Your task to perform on an android device: Add "energizer triple a" to the cart on costco.com Image 0: 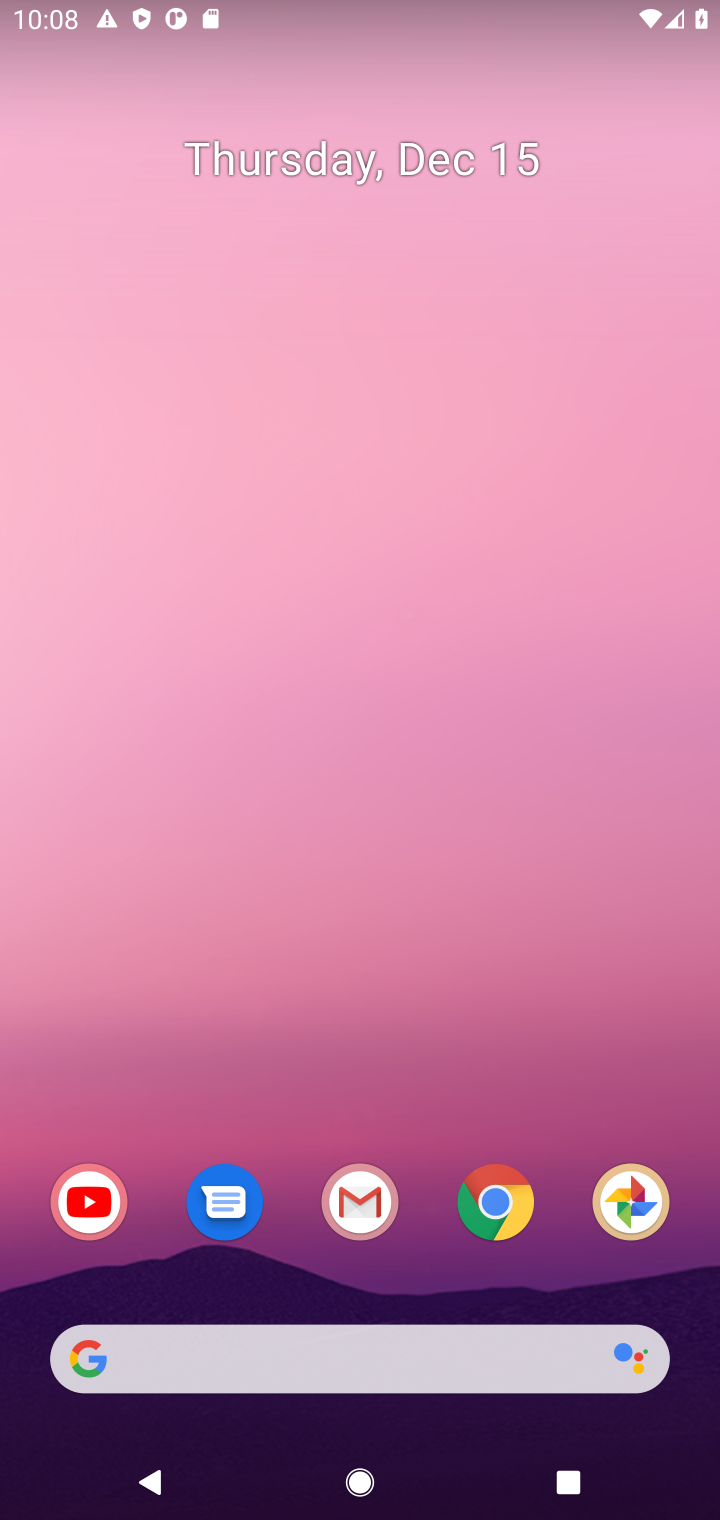
Step 0: click (487, 1221)
Your task to perform on an android device: Add "energizer triple a" to the cart on costco.com Image 1: 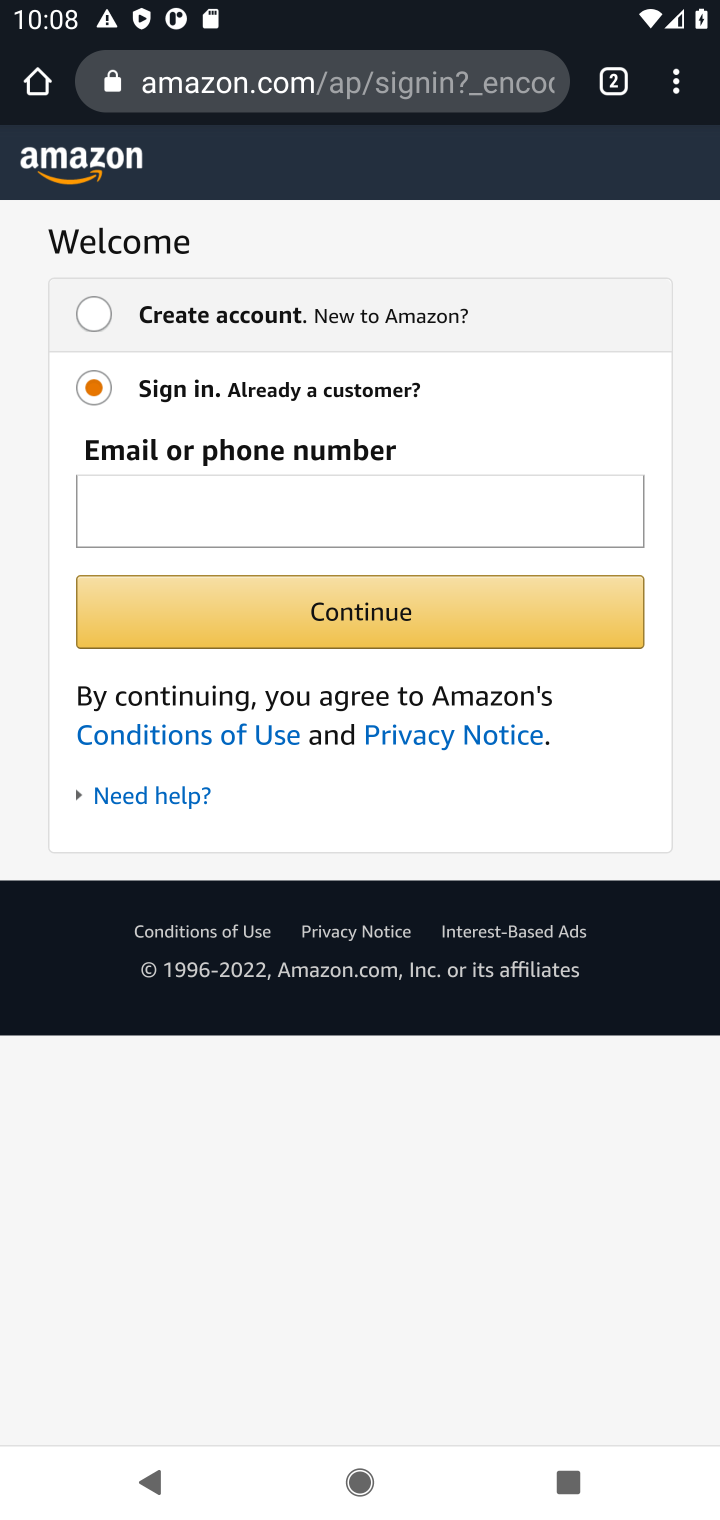
Step 1: click (276, 86)
Your task to perform on an android device: Add "energizer triple a" to the cart on costco.com Image 2: 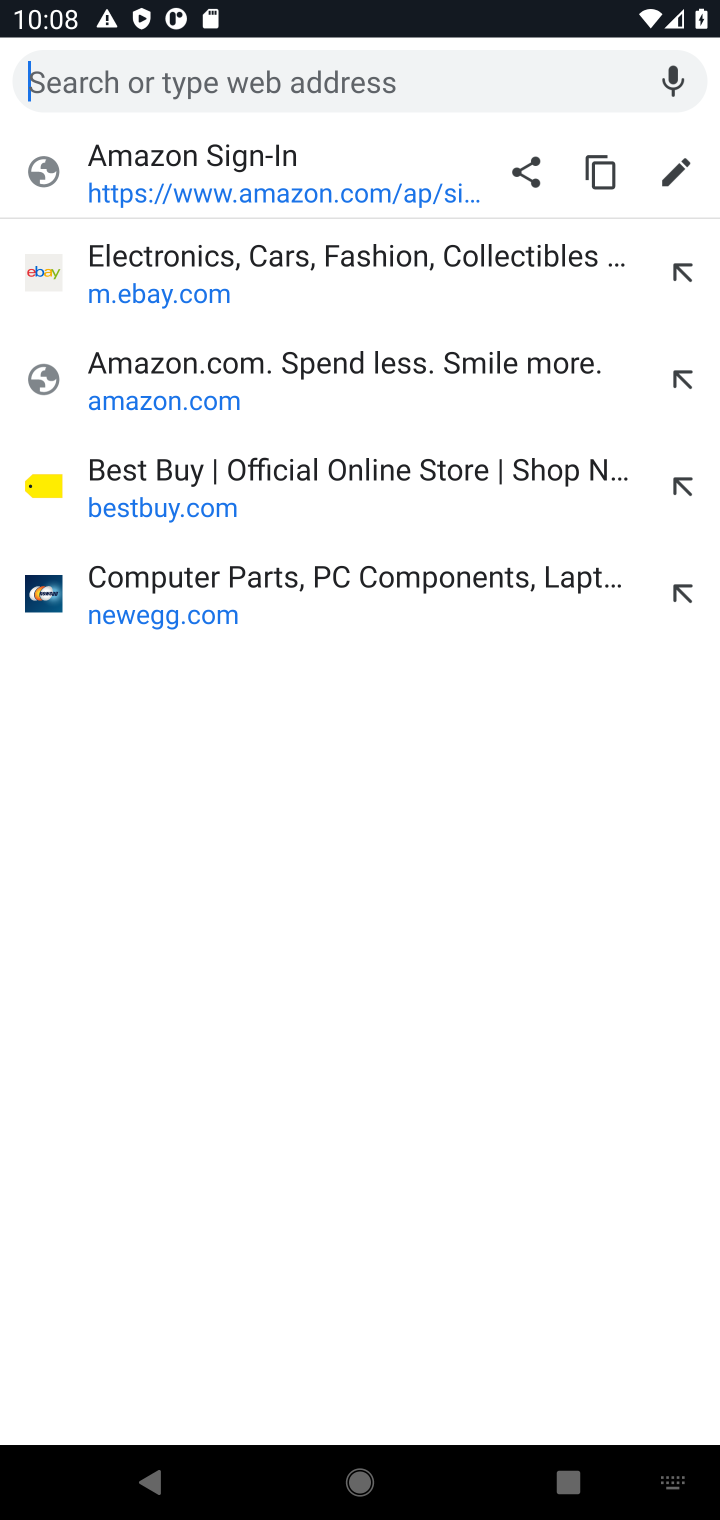
Step 2: type "costco.com"
Your task to perform on an android device: Add "energizer triple a" to the cart on costco.com Image 3: 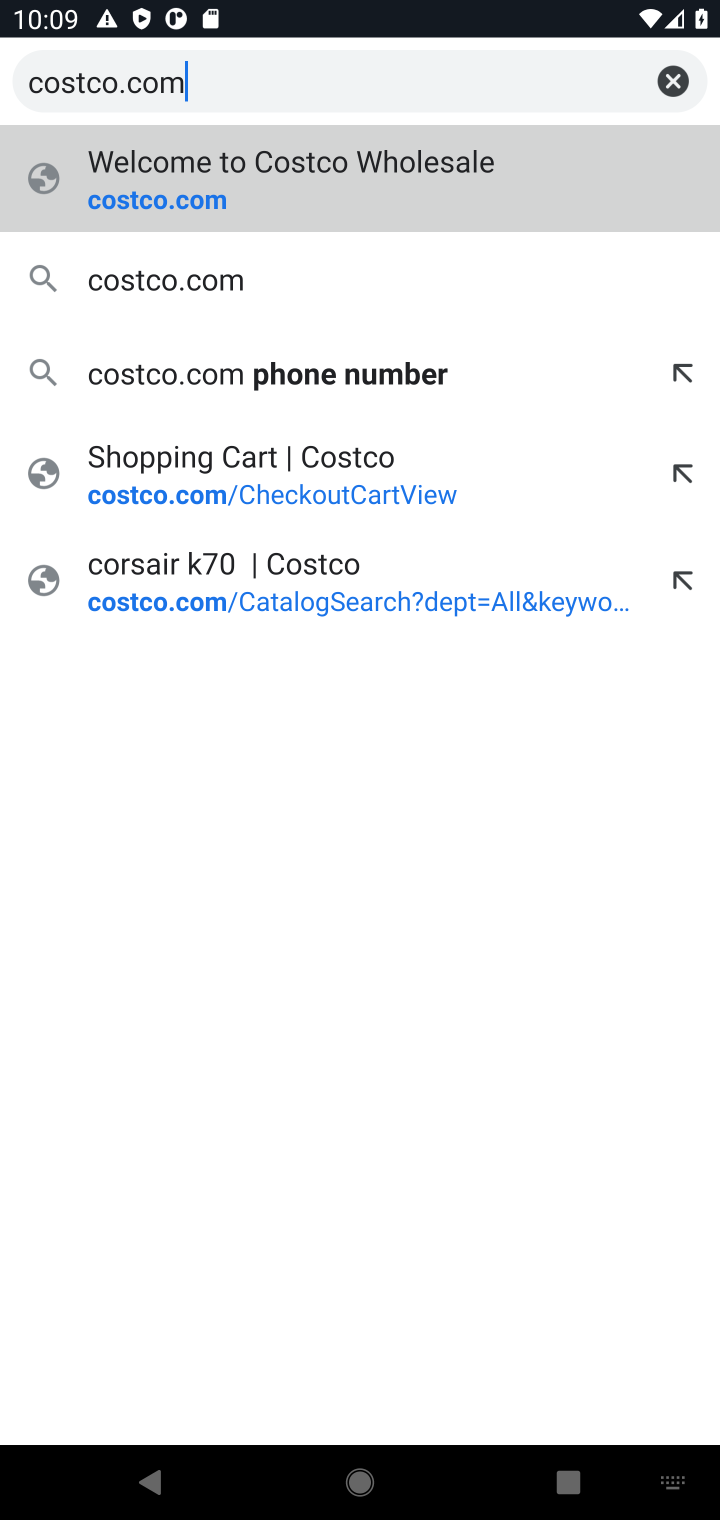
Step 3: click (182, 205)
Your task to perform on an android device: Add "energizer triple a" to the cart on costco.com Image 4: 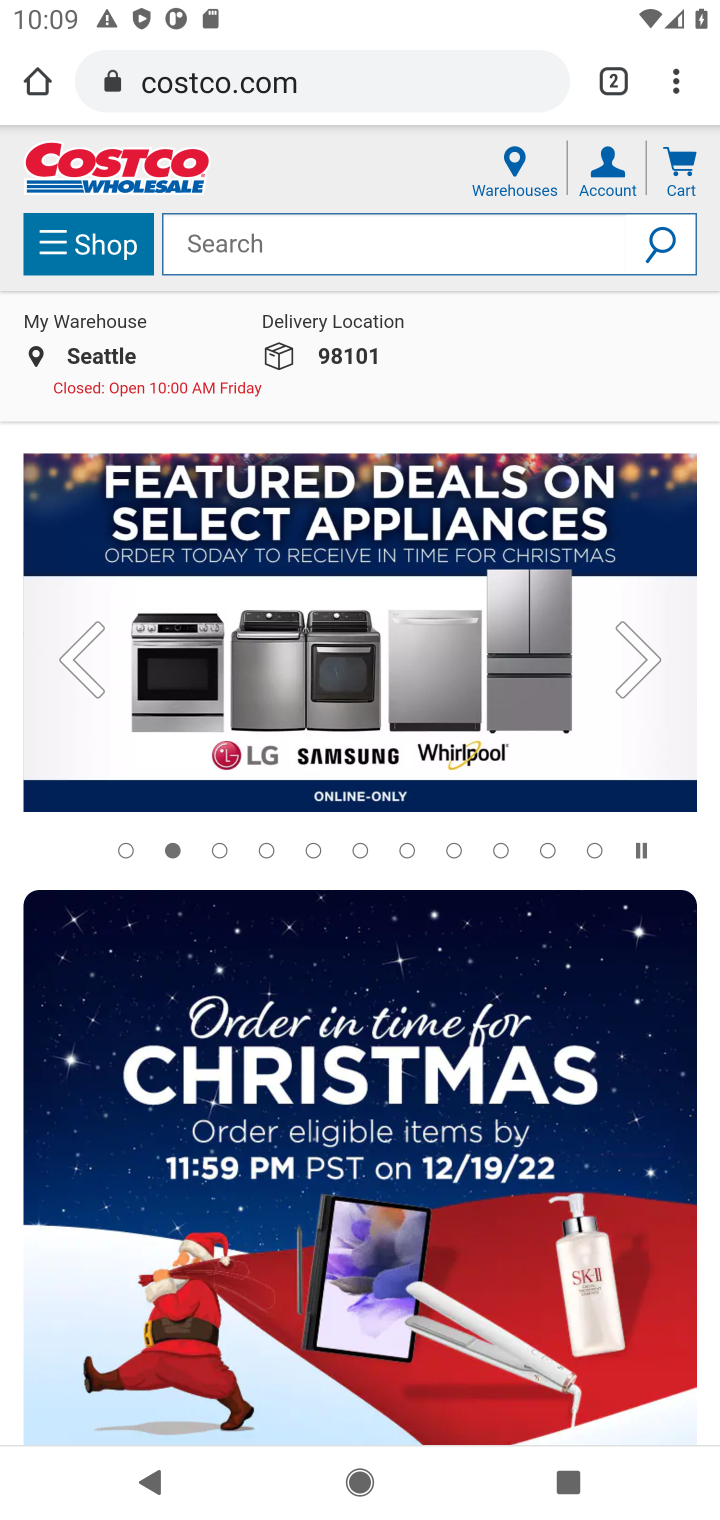
Step 4: click (320, 244)
Your task to perform on an android device: Add "energizer triple a" to the cart on costco.com Image 5: 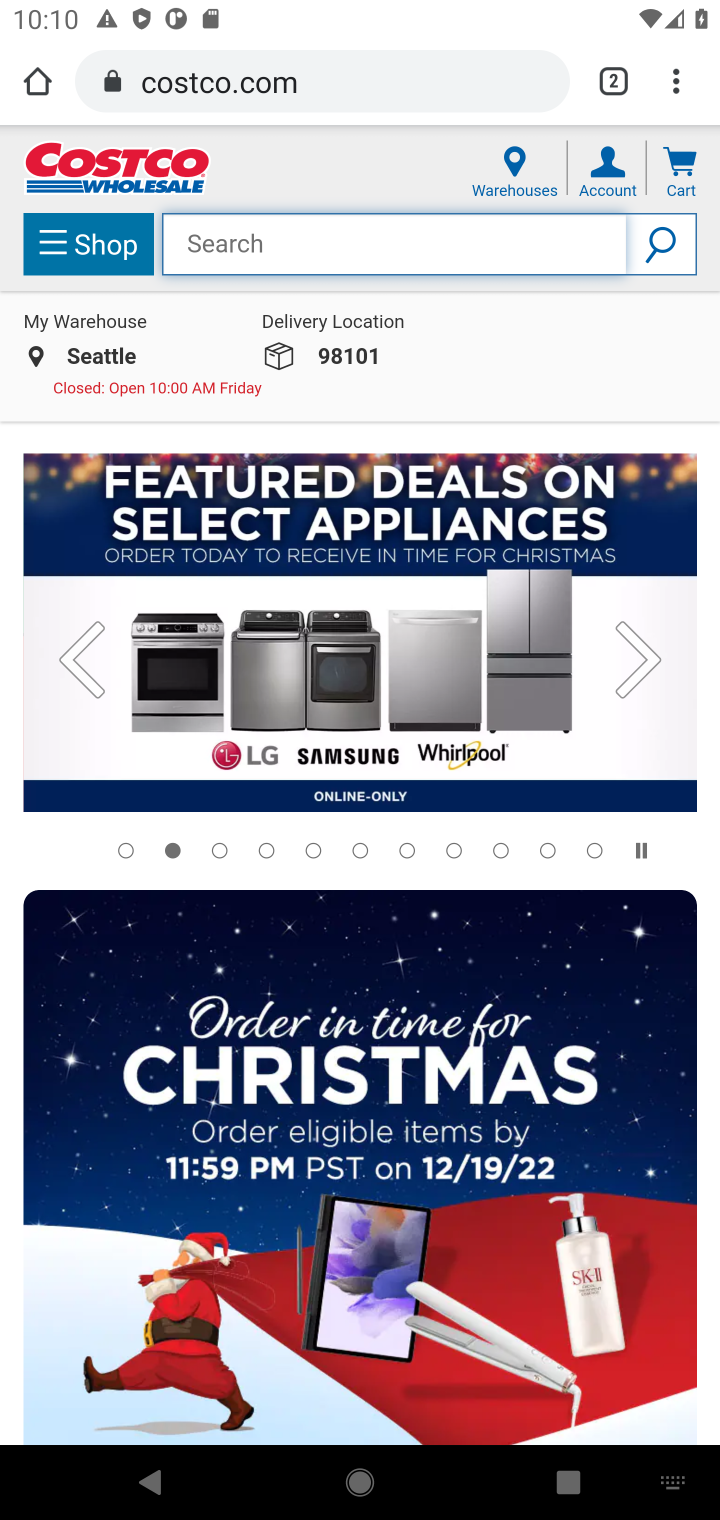
Step 5: type "energizer triple a"
Your task to perform on an android device: Add "energizer triple a" to the cart on costco.com Image 6: 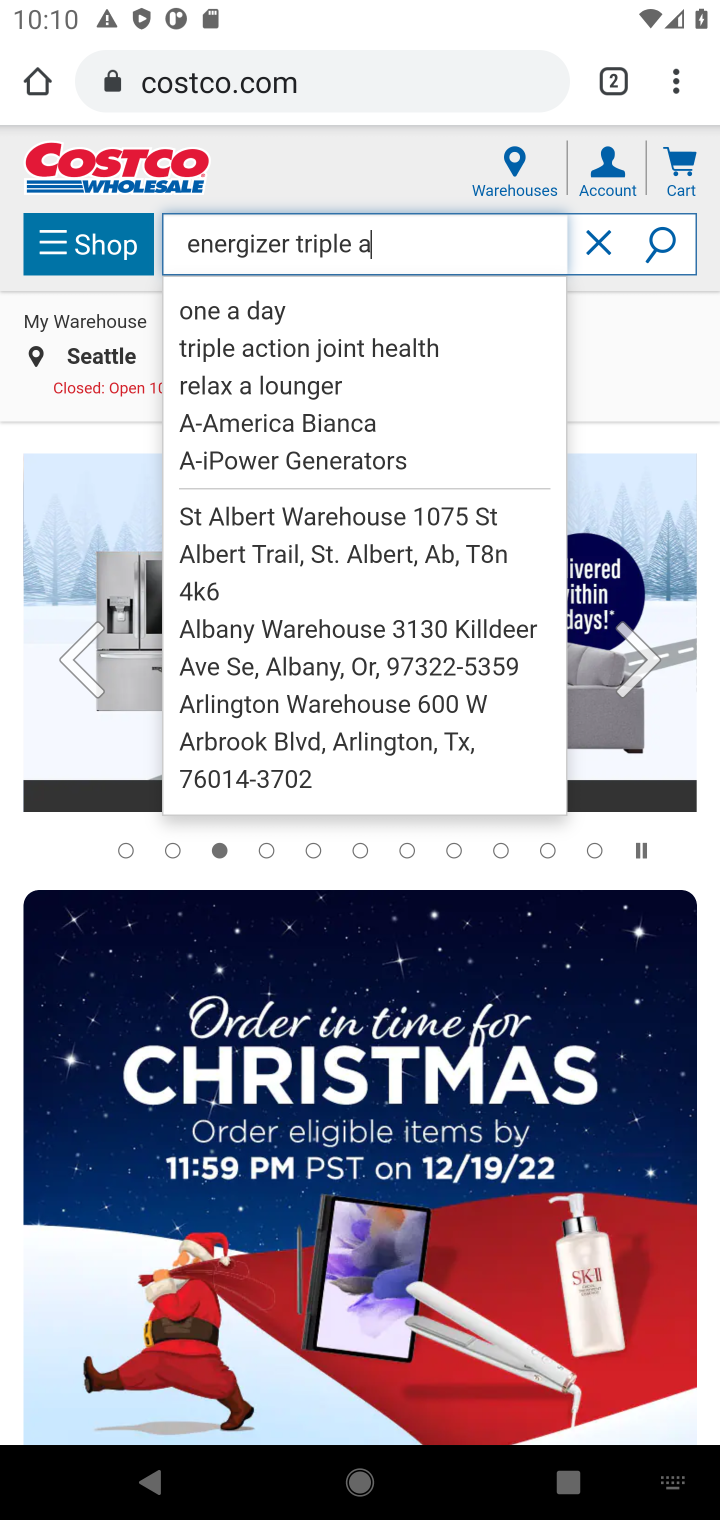
Step 6: click (663, 235)
Your task to perform on an android device: Add "energizer triple a" to the cart on costco.com Image 7: 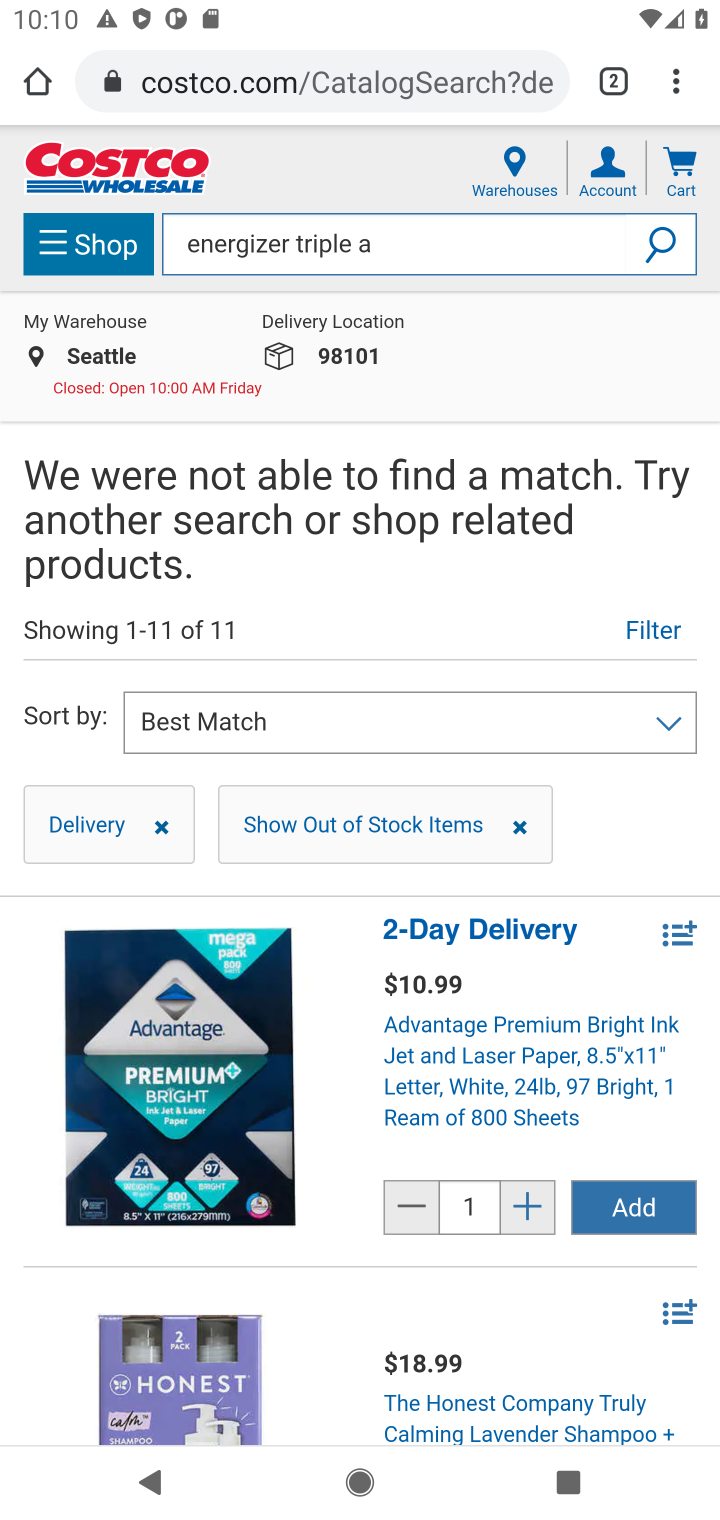
Step 7: task complete